Your task to perform on an android device: Do I have any events tomorrow? Image 0: 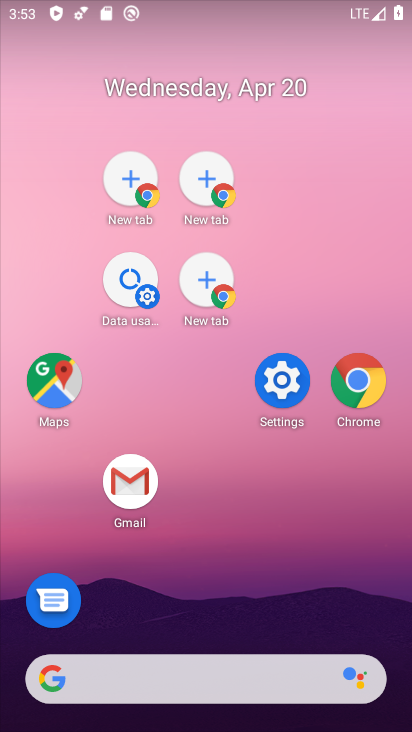
Step 0: drag from (234, 656) to (154, 45)
Your task to perform on an android device: Do I have any events tomorrow? Image 1: 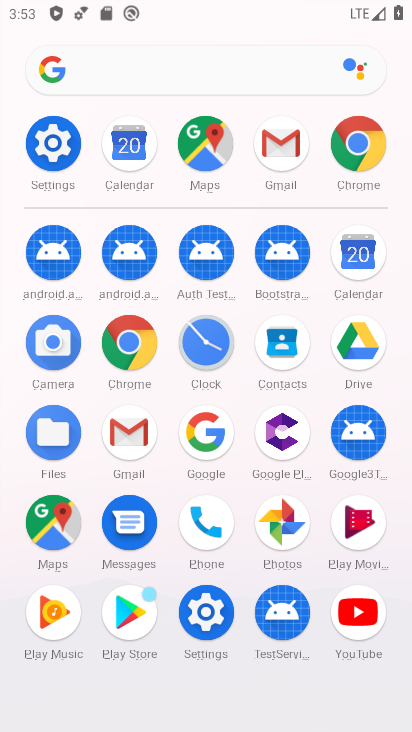
Step 1: click (347, 248)
Your task to perform on an android device: Do I have any events tomorrow? Image 2: 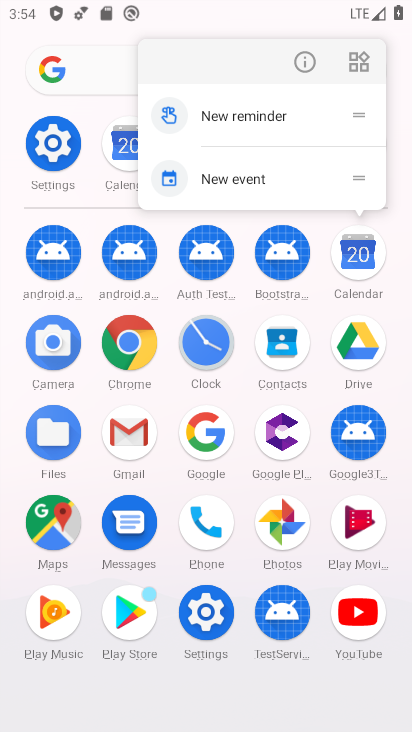
Step 2: click (359, 244)
Your task to perform on an android device: Do I have any events tomorrow? Image 3: 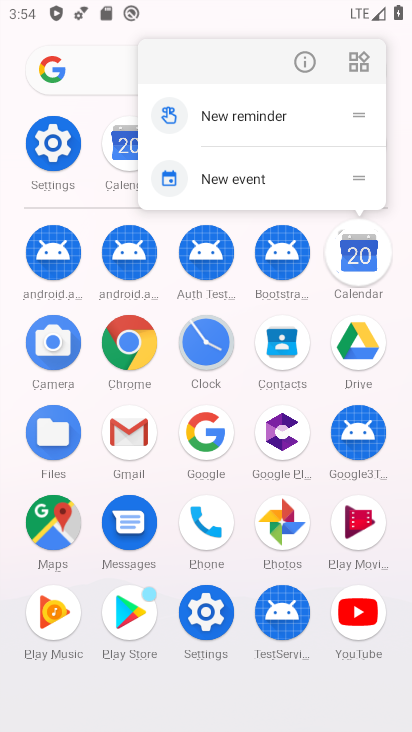
Step 3: click (357, 243)
Your task to perform on an android device: Do I have any events tomorrow? Image 4: 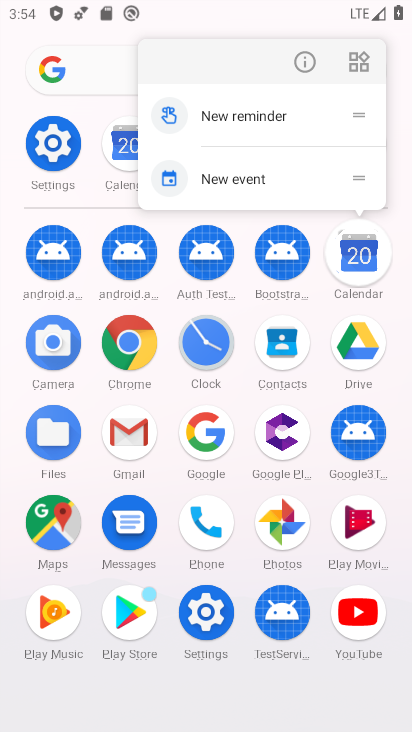
Step 4: drag from (359, 246) to (374, 303)
Your task to perform on an android device: Do I have any events tomorrow? Image 5: 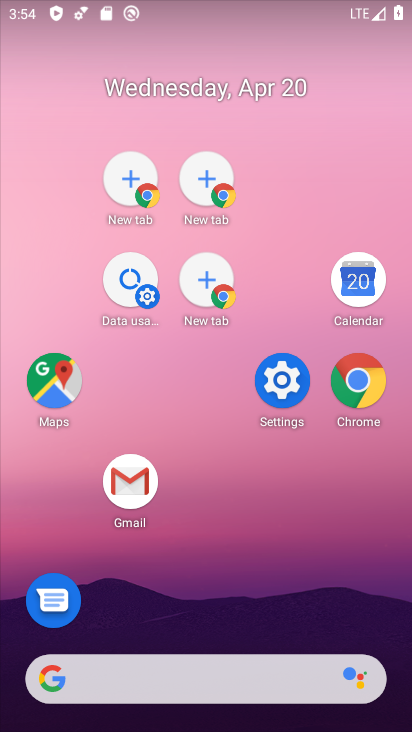
Step 5: click (356, 271)
Your task to perform on an android device: Do I have any events tomorrow? Image 6: 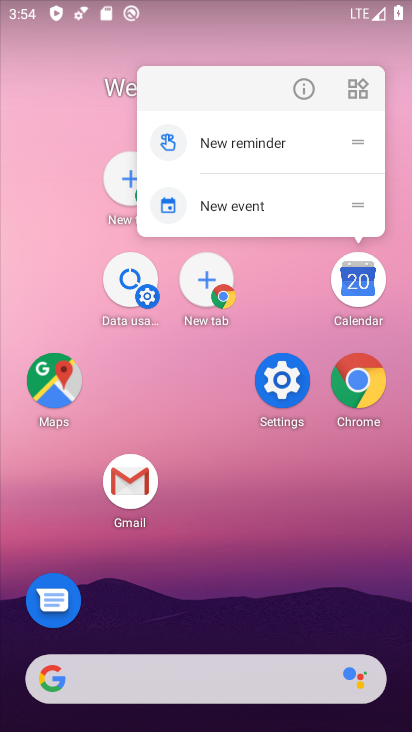
Step 6: click (206, 212)
Your task to perform on an android device: Do I have any events tomorrow? Image 7: 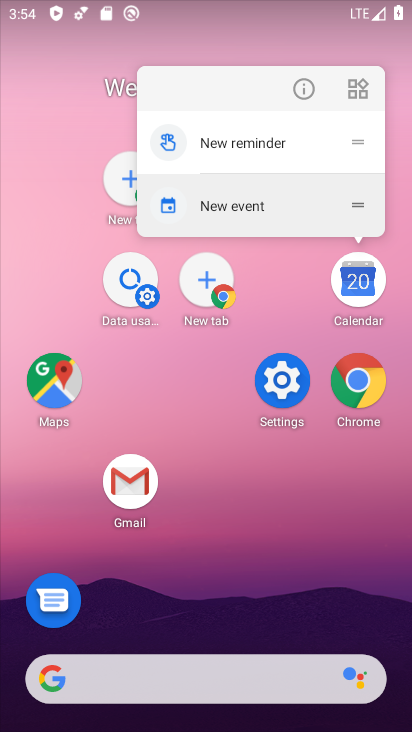
Step 7: click (205, 201)
Your task to perform on an android device: Do I have any events tomorrow? Image 8: 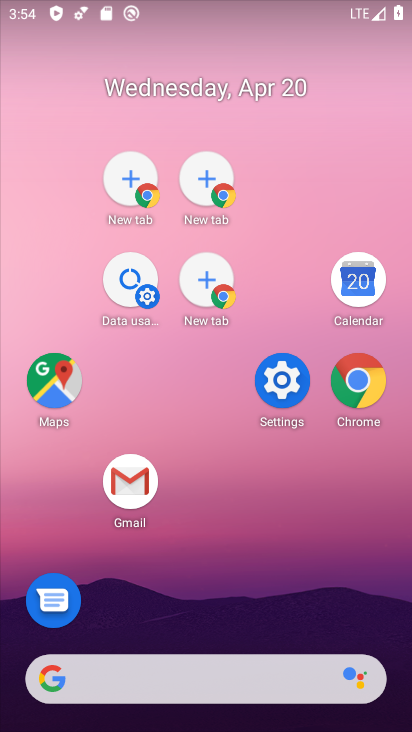
Step 8: drag from (171, 301) to (146, 159)
Your task to perform on an android device: Do I have any events tomorrow? Image 9: 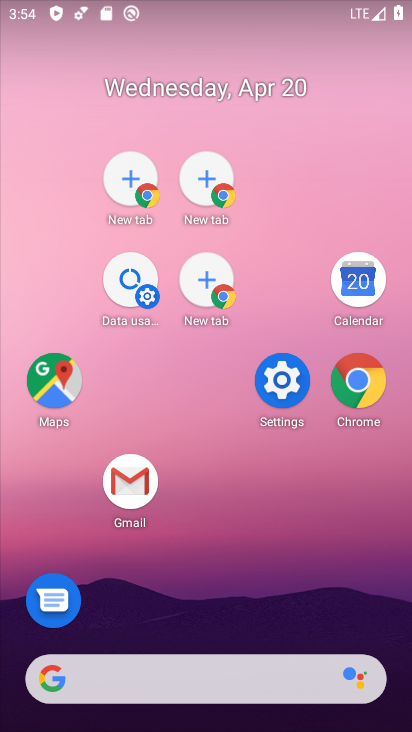
Step 9: drag from (267, 534) to (234, 180)
Your task to perform on an android device: Do I have any events tomorrow? Image 10: 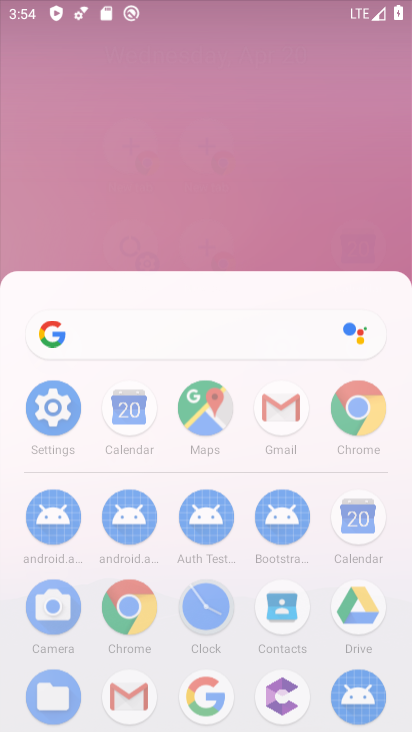
Step 10: drag from (276, 606) to (105, 21)
Your task to perform on an android device: Do I have any events tomorrow? Image 11: 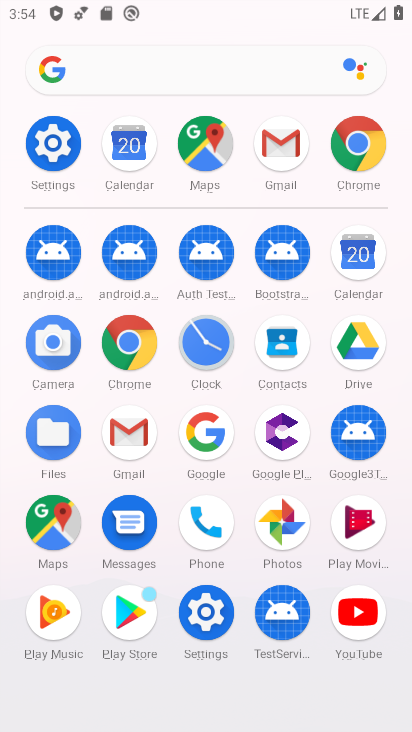
Step 11: click (343, 249)
Your task to perform on an android device: Do I have any events tomorrow? Image 12: 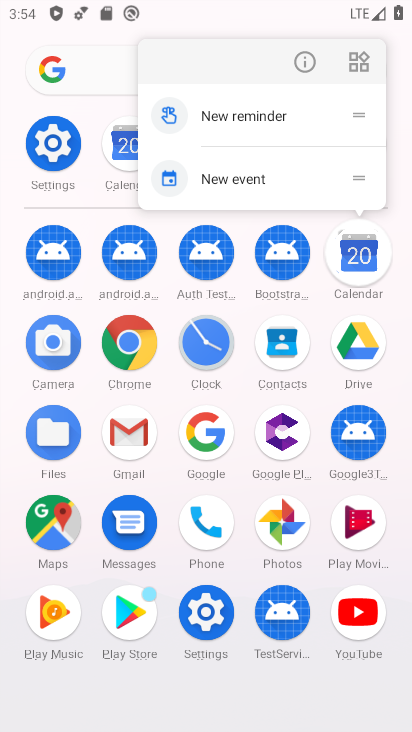
Step 12: click (343, 249)
Your task to perform on an android device: Do I have any events tomorrow? Image 13: 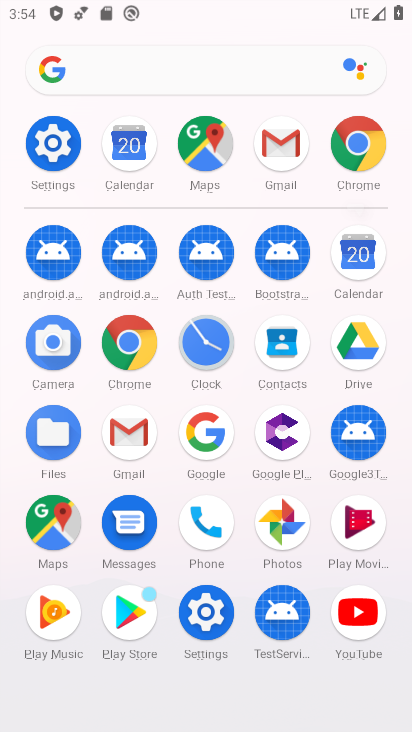
Step 13: click (352, 249)
Your task to perform on an android device: Do I have any events tomorrow? Image 14: 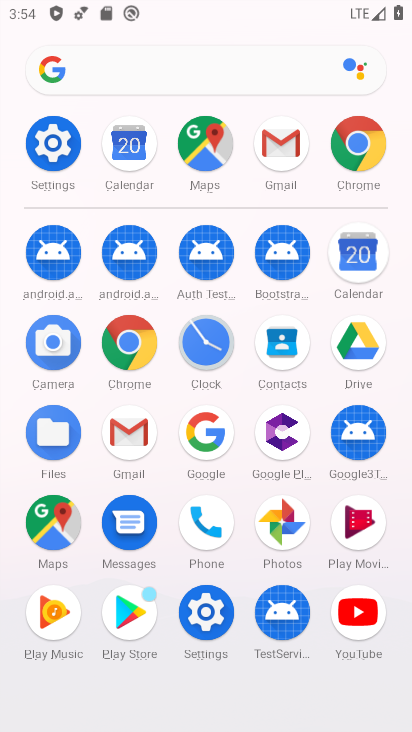
Step 14: click (362, 253)
Your task to perform on an android device: Do I have any events tomorrow? Image 15: 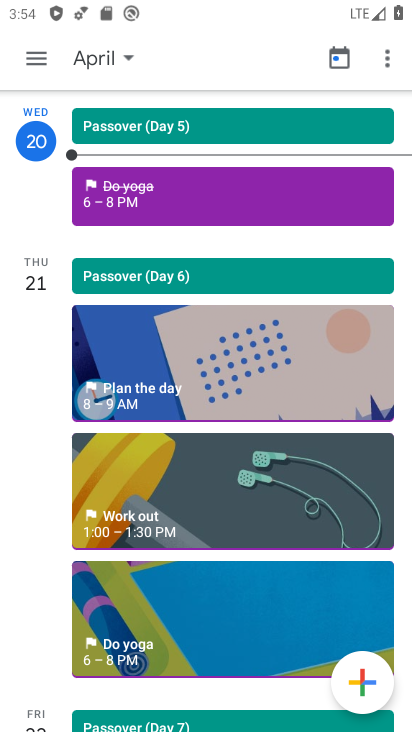
Step 15: task complete